Your task to perform on an android device: Go to Yahoo.com Image 0: 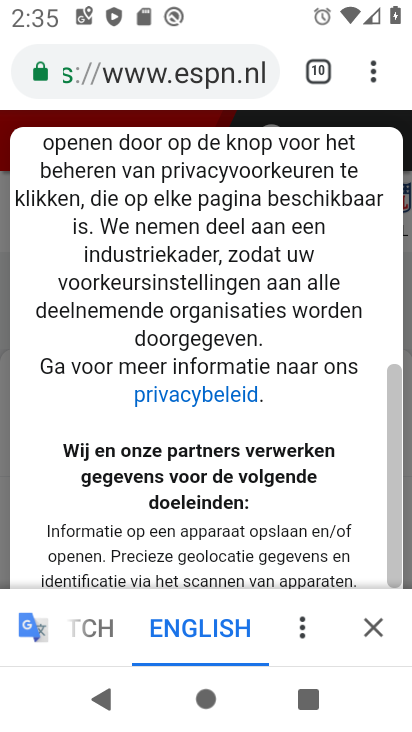
Step 0: press home button
Your task to perform on an android device: Go to Yahoo.com Image 1: 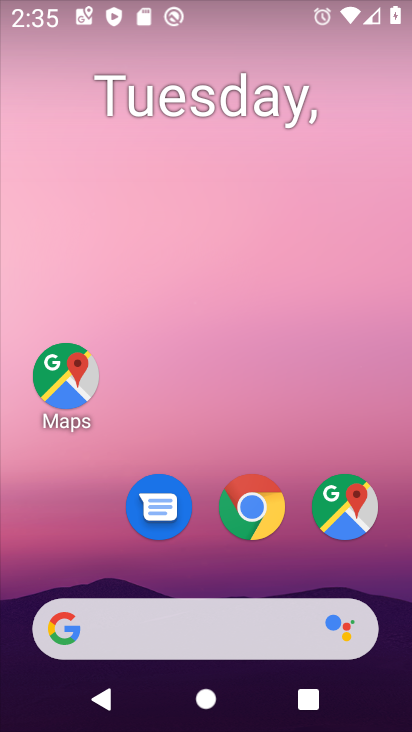
Step 1: drag from (304, 562) to (329, 83)
Your task to perform on an android device: Go to Yahoo.com Image 2: 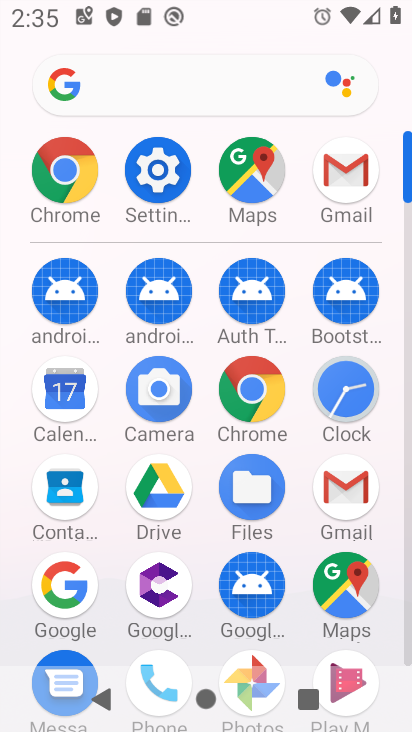
Step 2: click (248, 384)
Your task to perform on an android device: Go to Yahoo.com Image 3: 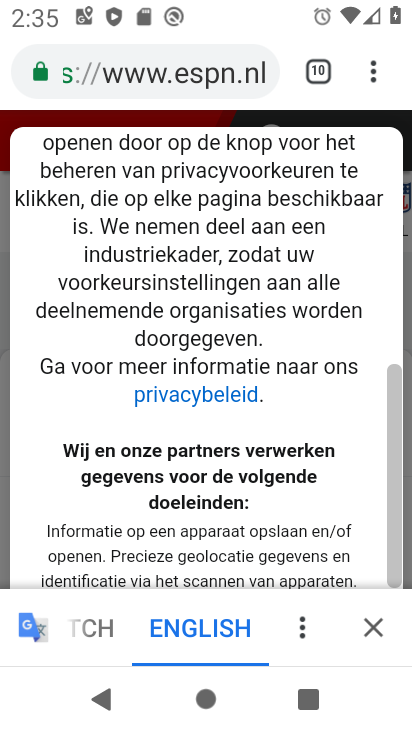
Step 3: click (368, 71)
Your task to perform on an android device: Go to Yahoo.com Image 4: 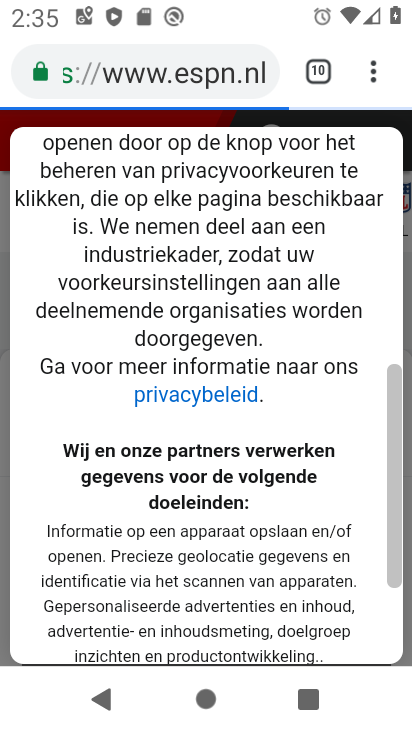
Step 4: click (355, 63)
Your task to perform on an android device: Go to Yahoo.com Image 5: 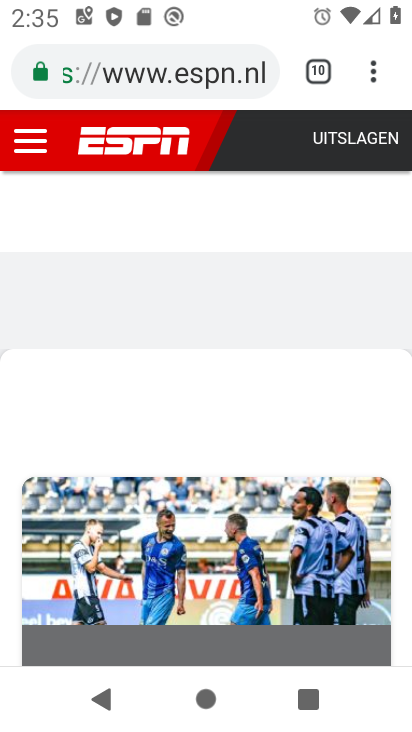
Step 5: click (368, 68)
Your task to perform on an android device: Go to Yahoo.com Image 6: 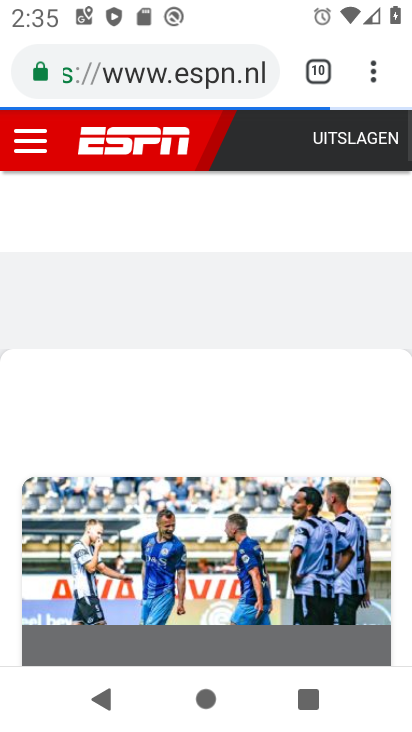
Step 6: click (359, 71)
Your task to perform on an android device: Go to Yahoo.com Image 7: 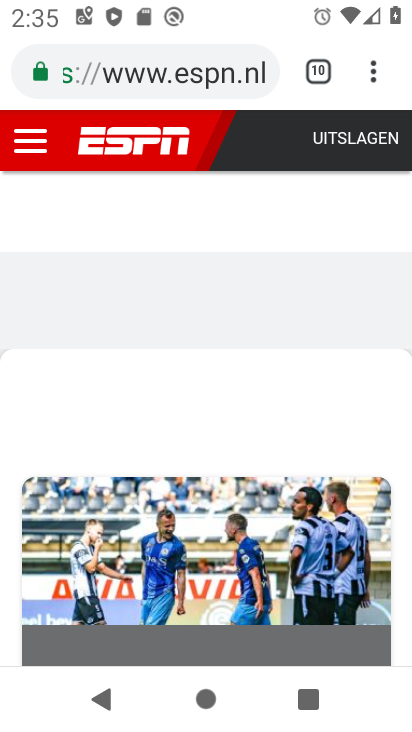
Step 7: click (362, 67)
Your task to perform on an android device: Go to Yahoo.com Image 8: 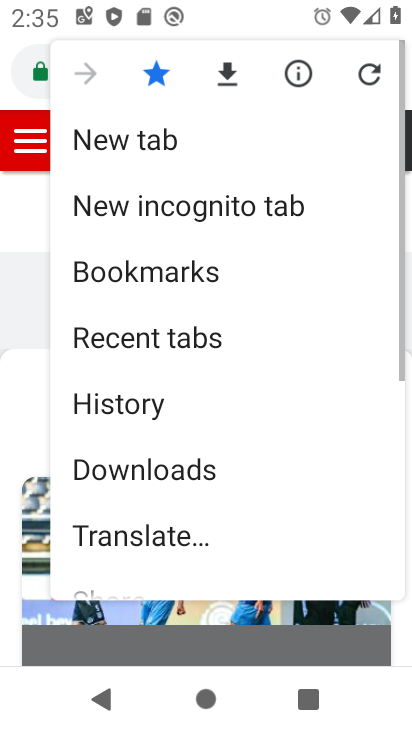
Step 8: click (162, 130)
Your task to perform on an android device: Go to Yahoo.com Image 9: 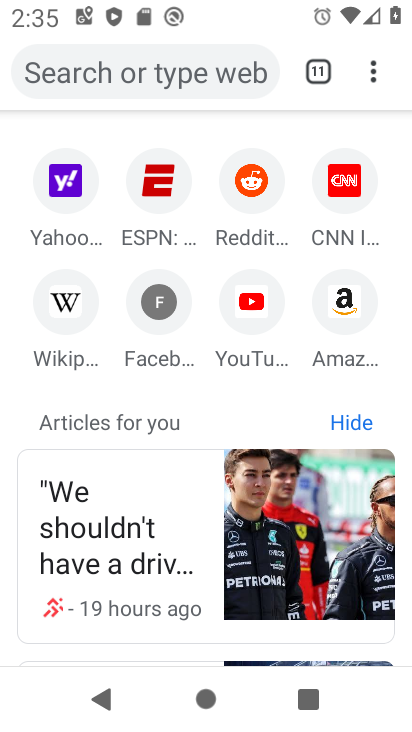
Step 9: click (58, 192)
Your task to perform on an android device: Go to Yahoo.com Image 10: 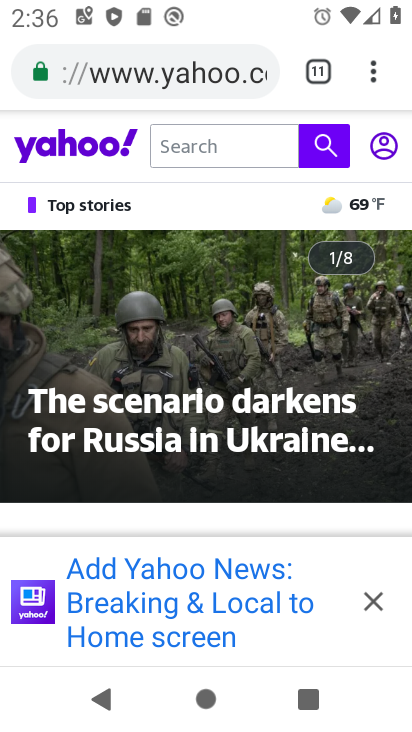
Step 10: click (365, 602)
Your task to perform on an android device: Go to Yahoo.com Image 11: 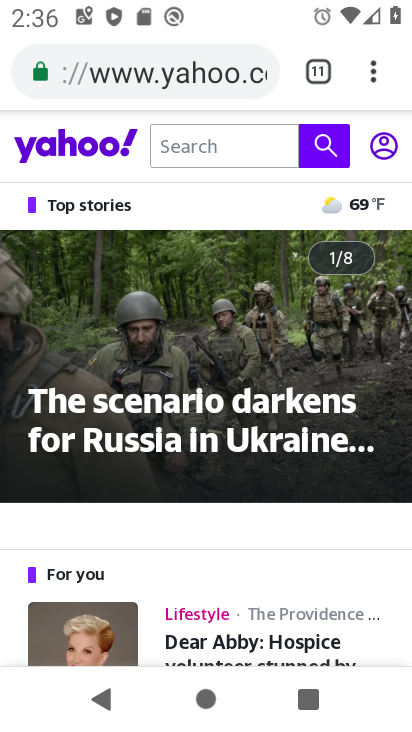
Step 11: task complete